Your task to perform on an android device: Install the eBay app Image 0: 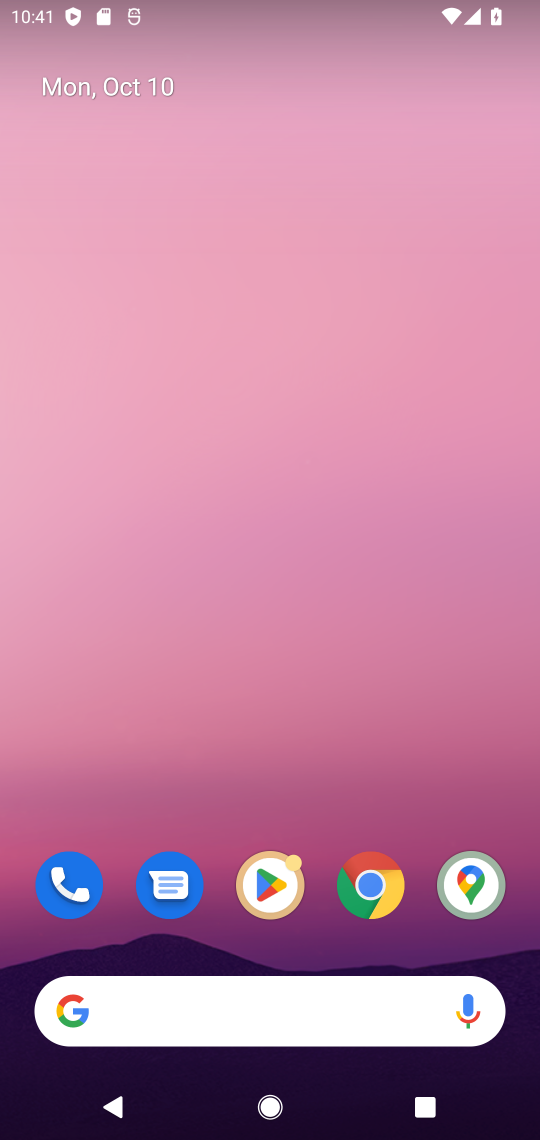
Step 0: click (280, 898)
Your task to perform on an android device: Install the eBay app Image 1: 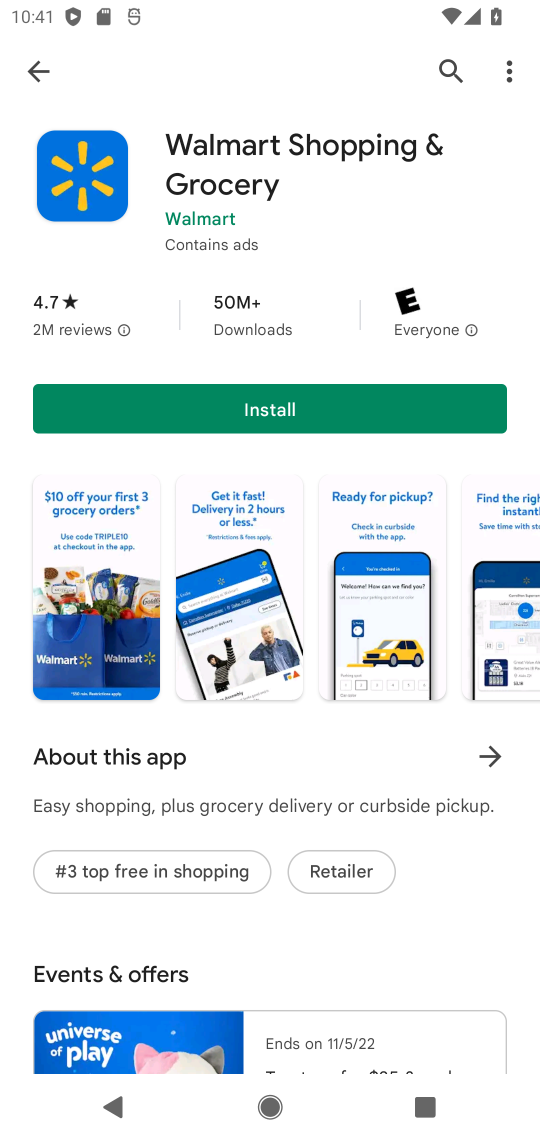
Step 1: click (43, 80)
Your task to perform on an android device: Install the eBay app Image 2: 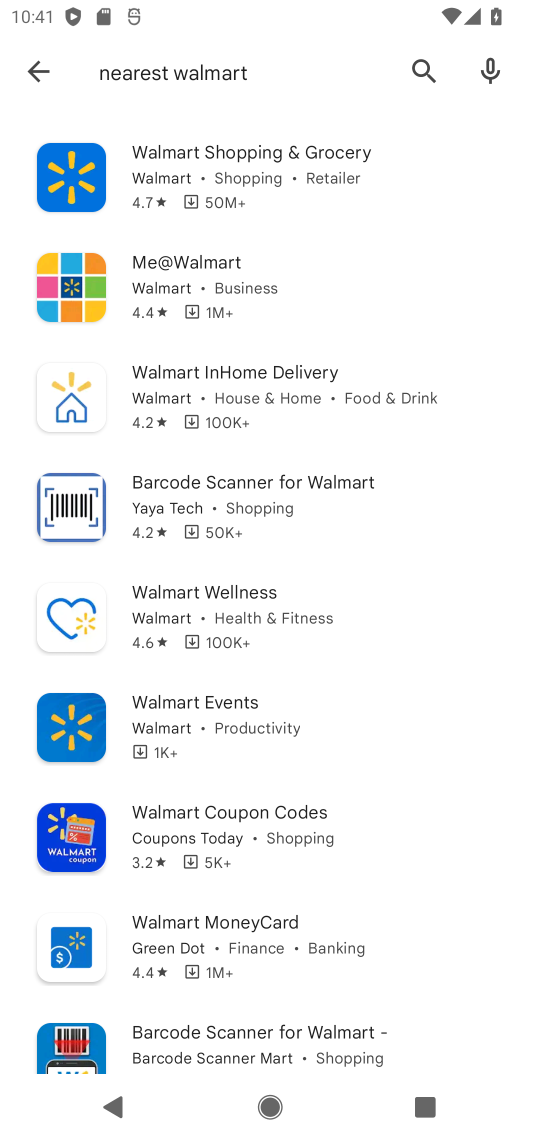
Step 2: click (38, 70)
Your task to perform on an android device: Install the eBay app Image 3: 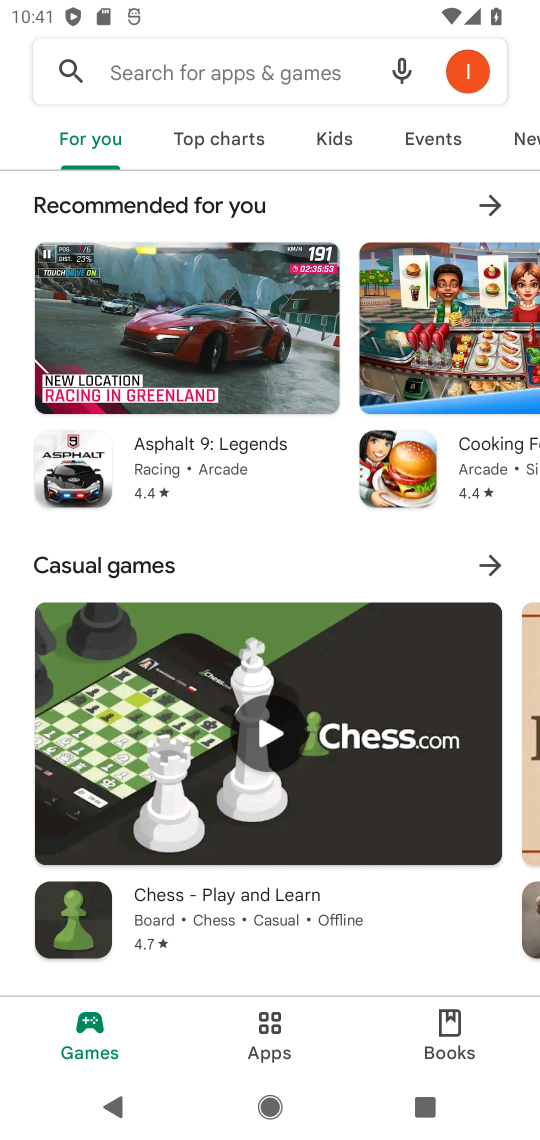
Step 3: click (119, 70)
Your task to perform on an android device: Install the eBay app Image 4: 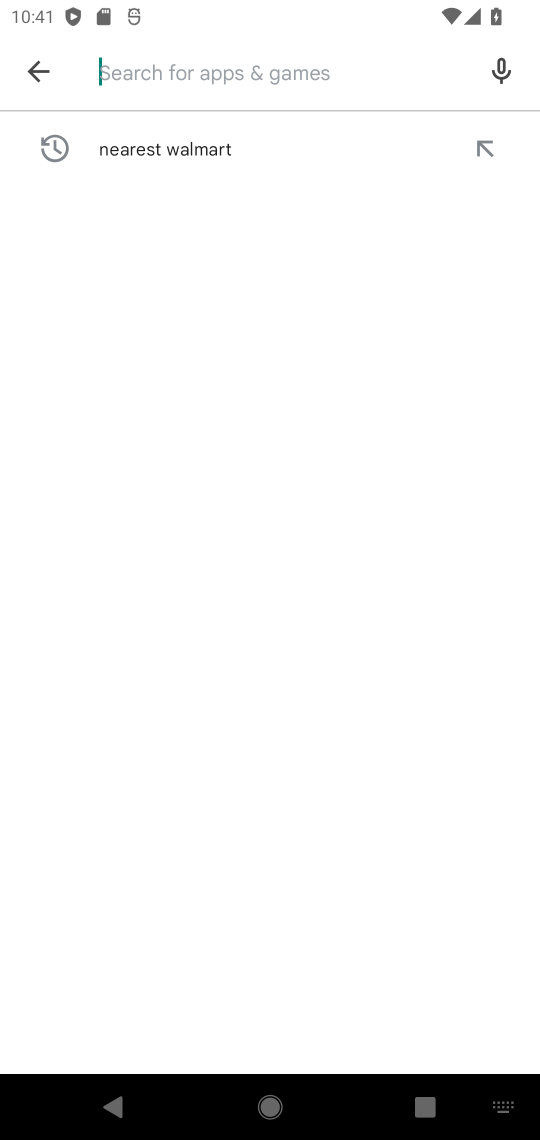
Step 4: type "eBay"
Your task to perform on an android device: Install the eBay app Image 5: 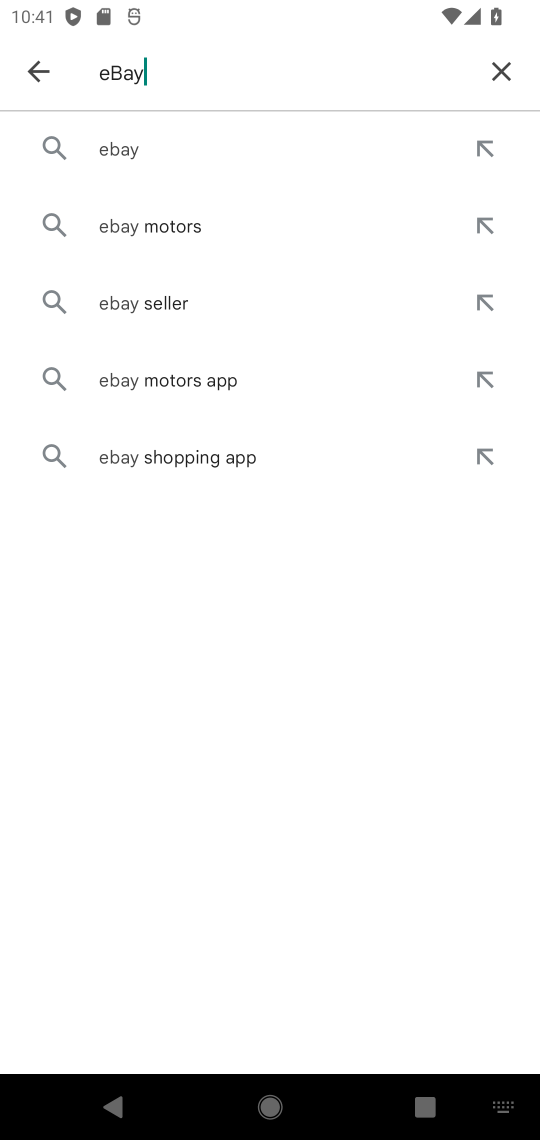
Step 5: click (173, 153)
Your task to perform on an android device: Install the eBay app Image 6: 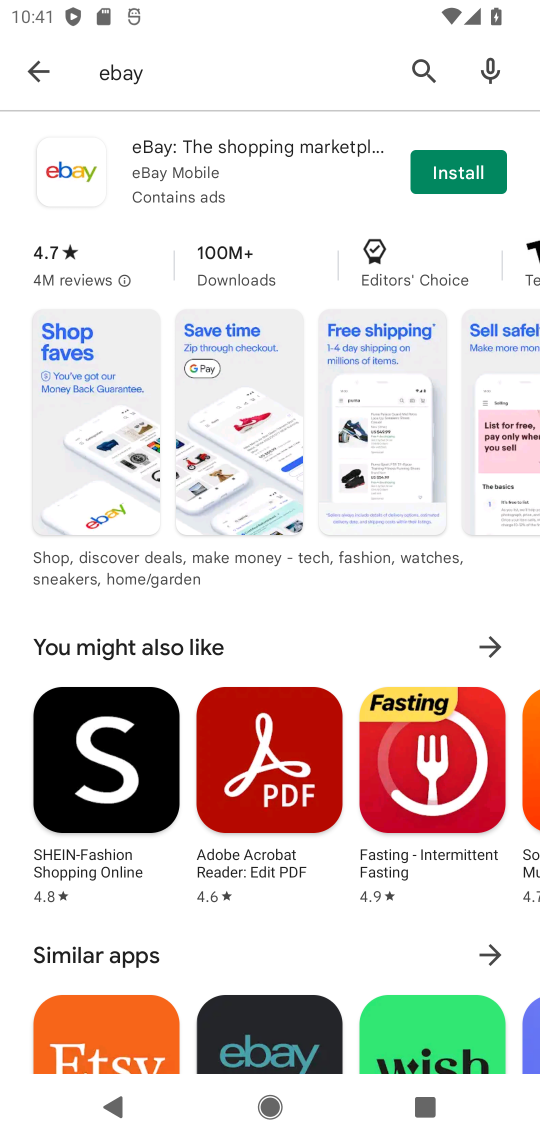
Step 6: click (474, 156)
Your task to perform on an android device: Install the eBay app Image 7: 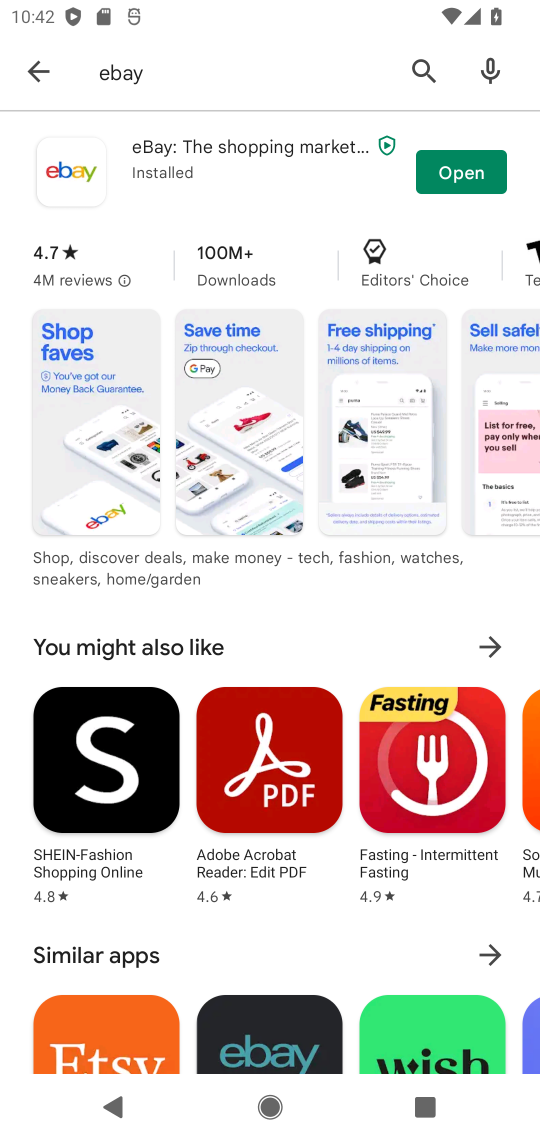
Step 7: task complete